Your task to perform on an android device: uninstall "Microsoft Excel" Image 0: 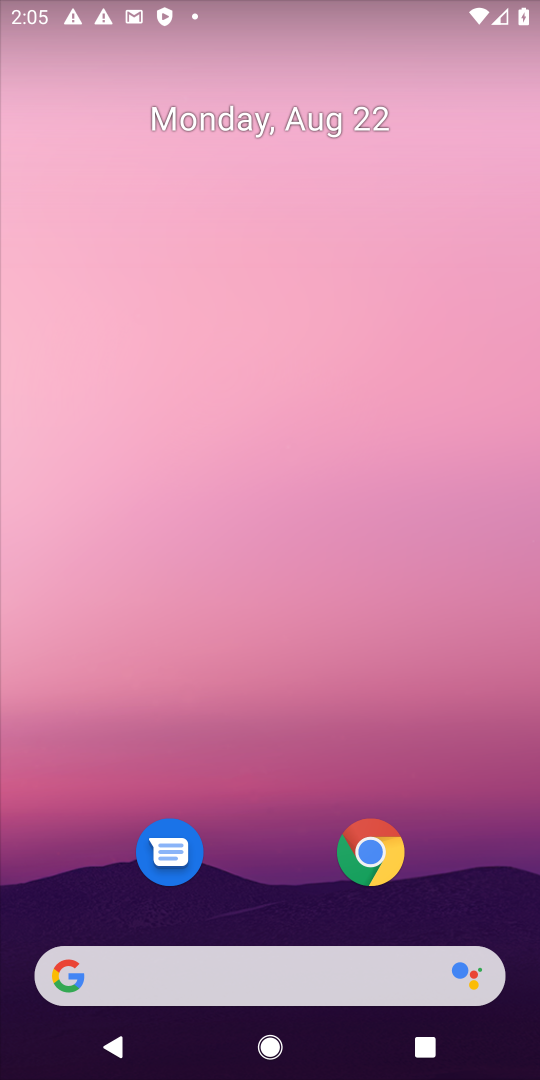
Step 0: drag from (306, 812) to (213, 33)
Your task to perform on an android device: uninstall "Microsoft Excel" Image 1: 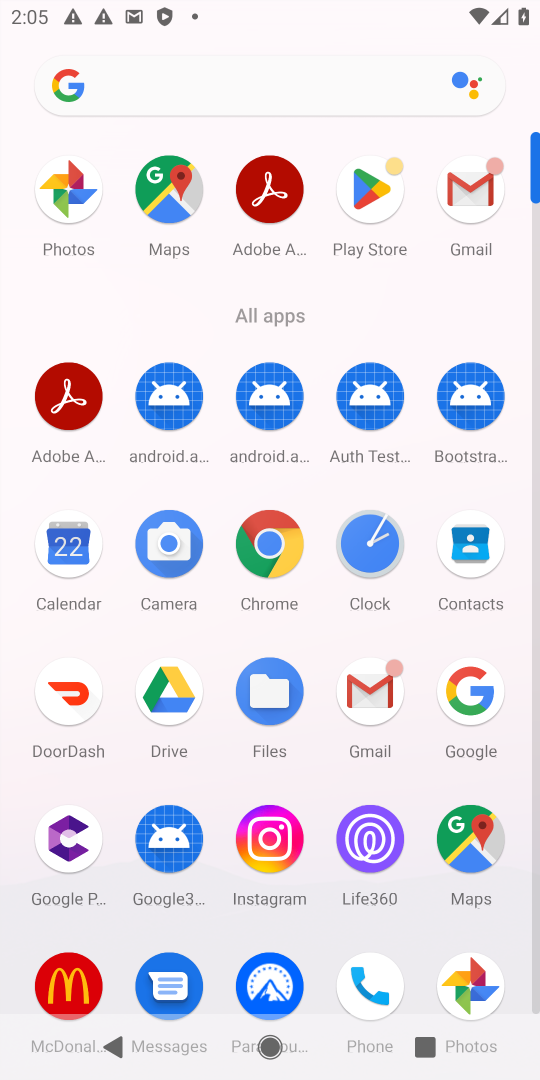
Step 1: click (381, 198)
Your task to perform on an android device: uninstall "Microsoft Excel" Image 2: 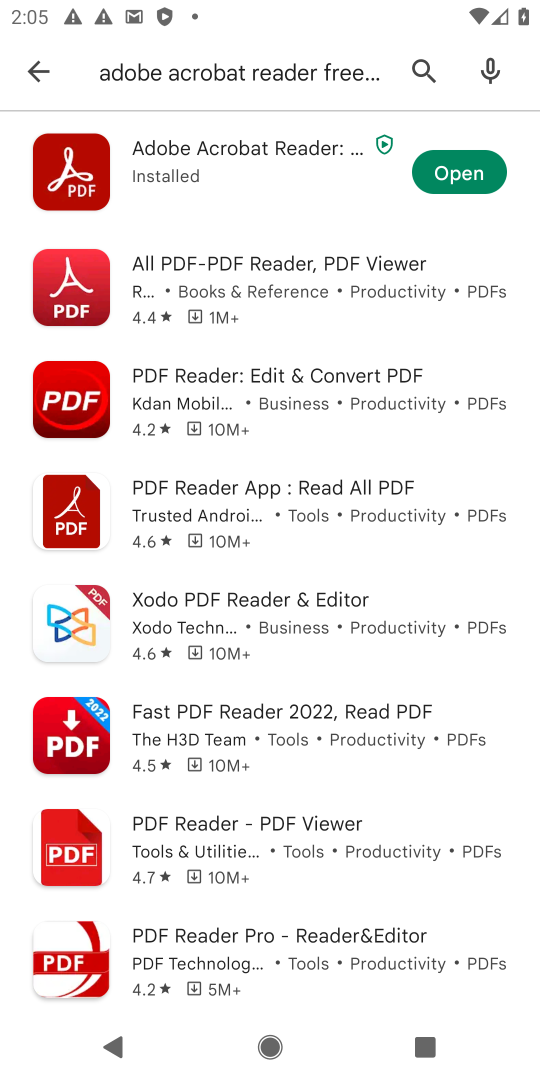
Step 2: click (421, 79)
Your task to perform on an android device: uninstall "Microsoft Excel" Image 3: 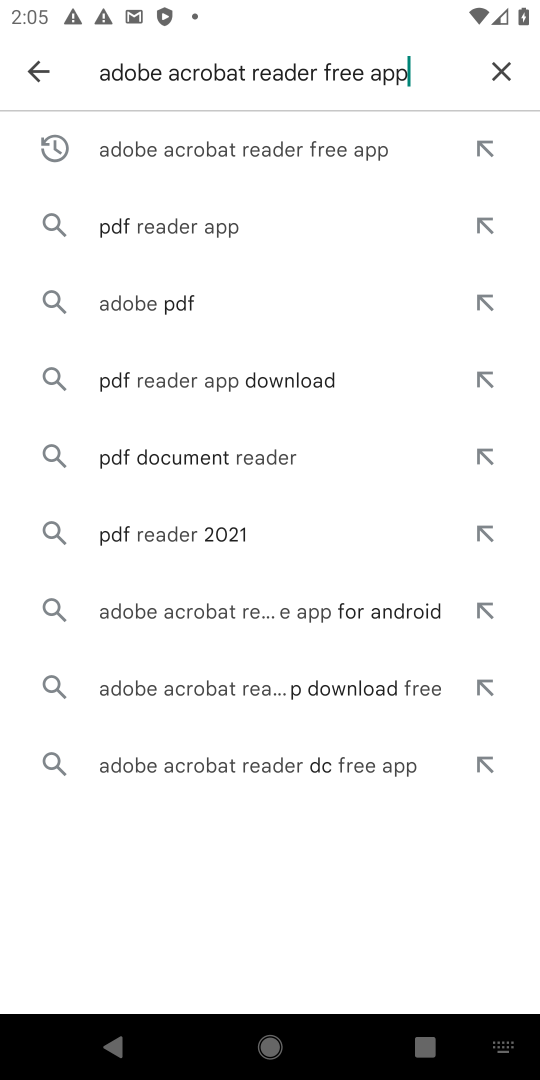
Step 3: click (500, 72)
Your task to perform on an android device: uninstall "Microsoft Excel" Image 4: 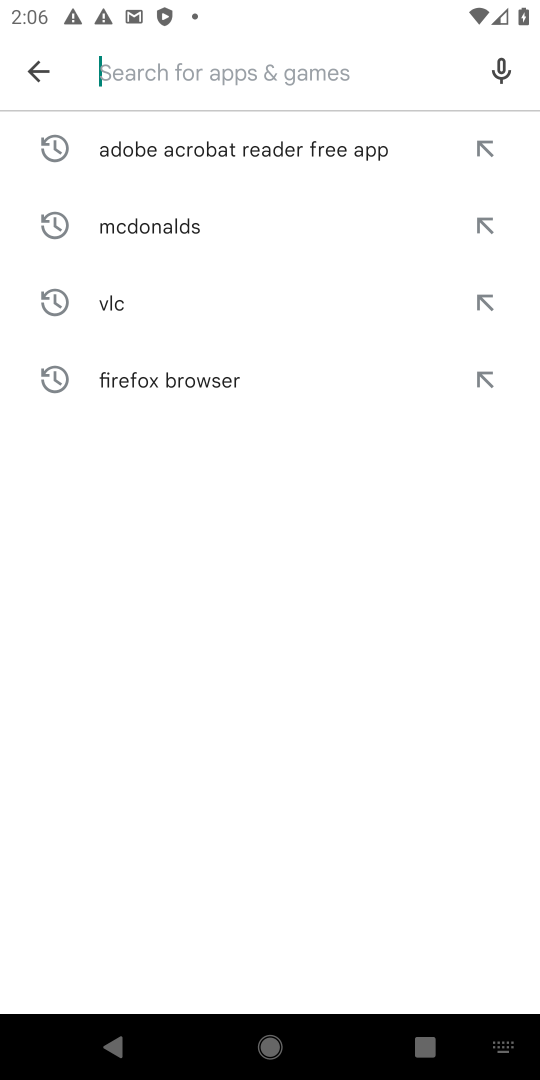
Step 4: type "microsoft excel"
Your task to perform on an android device: uninstall "Microsoft Excel" Image 5: 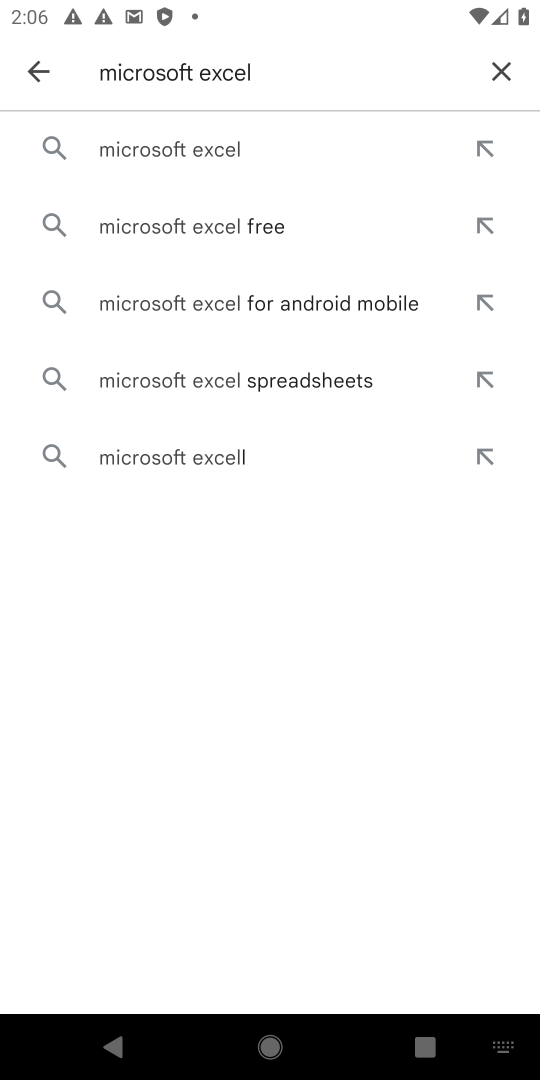
Step 5: click (189, 154)
Your task to perform on an android device: uninstall "Microsoft Excel" Image 6: 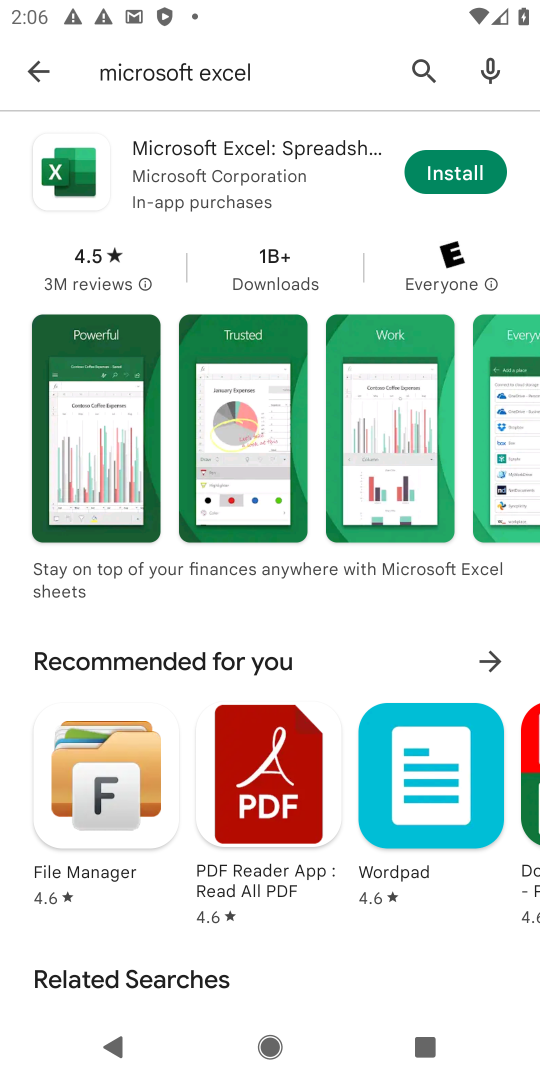
Step 6: task complete